Your task to perform on an android device: Is it going to rain tomorrow? Image 0: 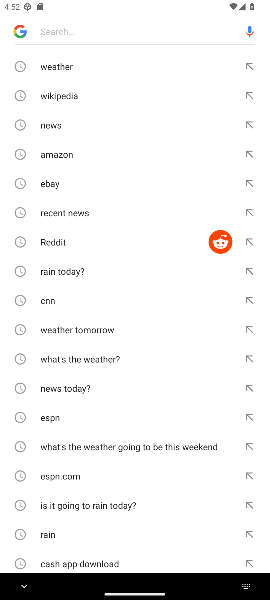
Step 0: click (46, 58)
Your task to perform on an android device: Is it going to rain tomorrow? Image 1: 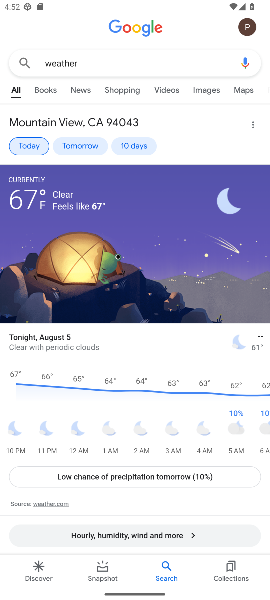
Step 1: click (82, 147)
Your task to perform on an android device: Is it going to rain tomorrow? Image 2: 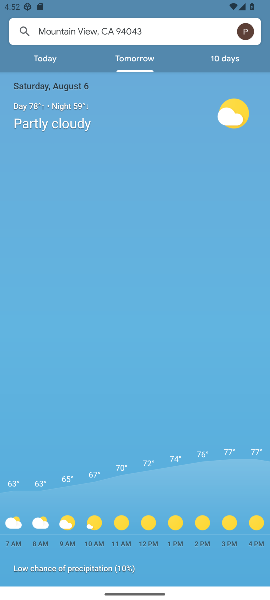
Step 2: task complete